Your task to perform on an android device: clear history in the chrome app Image 0: 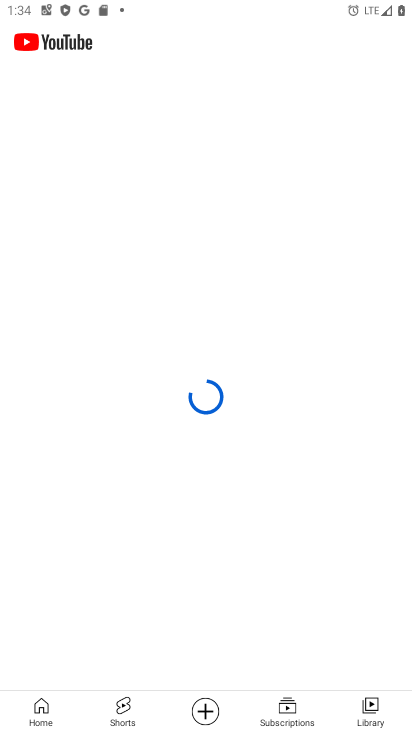
Step 0: press home button
Your task to perform on an android device: clear history in the chrome app Image 1: 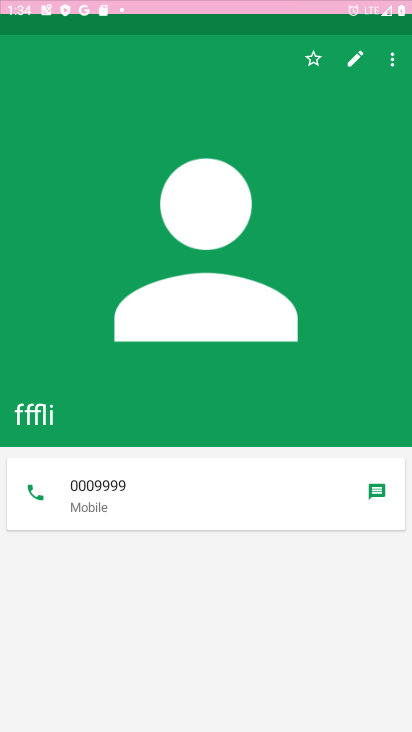
Step 1: drag from (245, 701) to (228, 124)
Your task to perform on an android device: clear history in the chrome app Image 2: 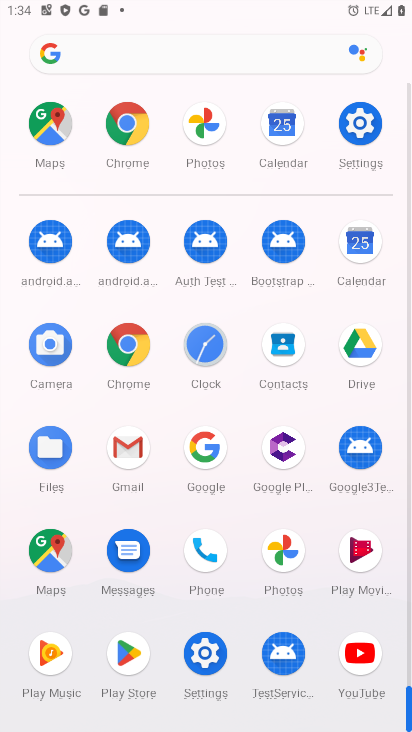
Step 2: click (153, 353)
Your task to perform on an android device: clear history in the chrome app Image 3: 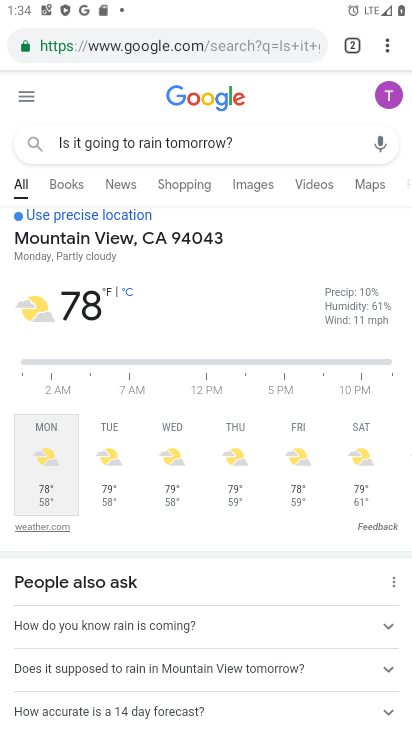
Step 3: task complete